Your task to perform on an android device: delete browsing data in the chrome app Image 0: 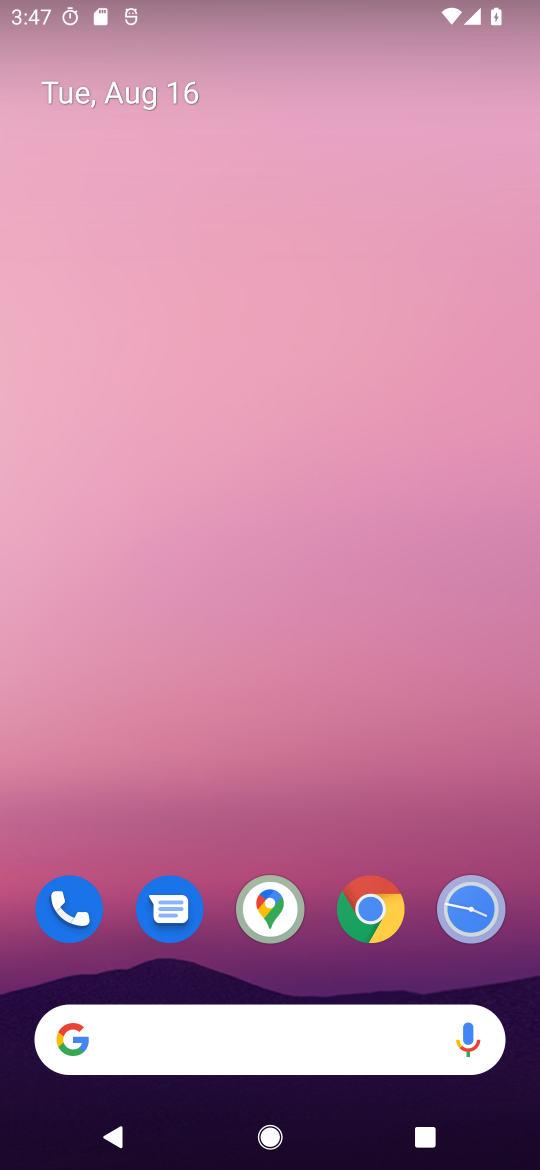
Step 0: drag from (218, 738) to (236, 298)
Your task to perform on an android device: delete browsing data in the chrome app Image 1: 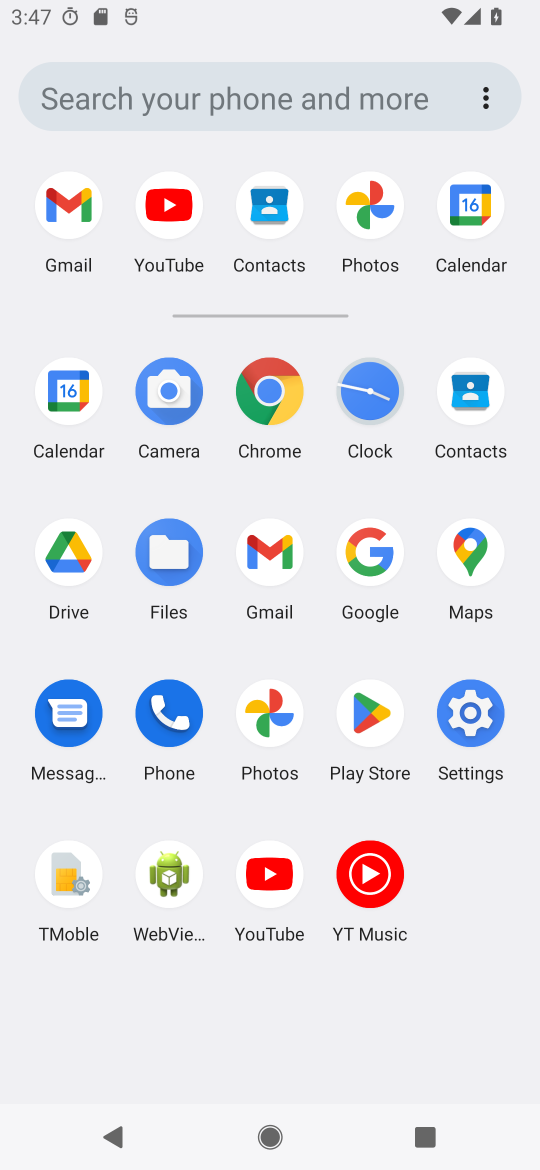
Step 1: click (269, 383)
Your task to perform on an android device: delete browsing data in the chrome app Image 2: 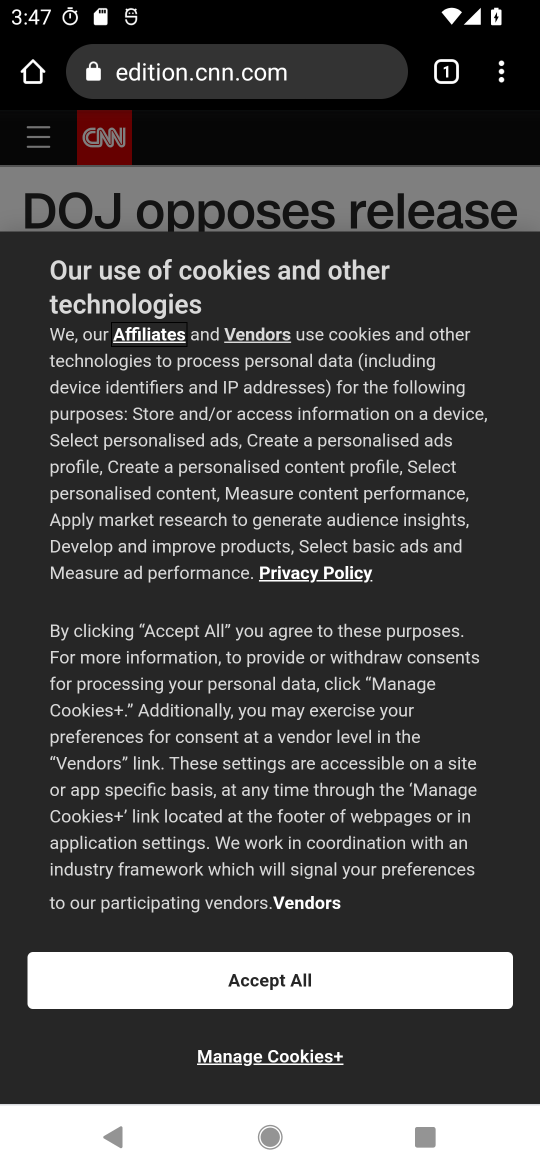
Step 2: click (501, 80)
Your task to perform on an android device: delete browsing data in the chrome app Image 3: 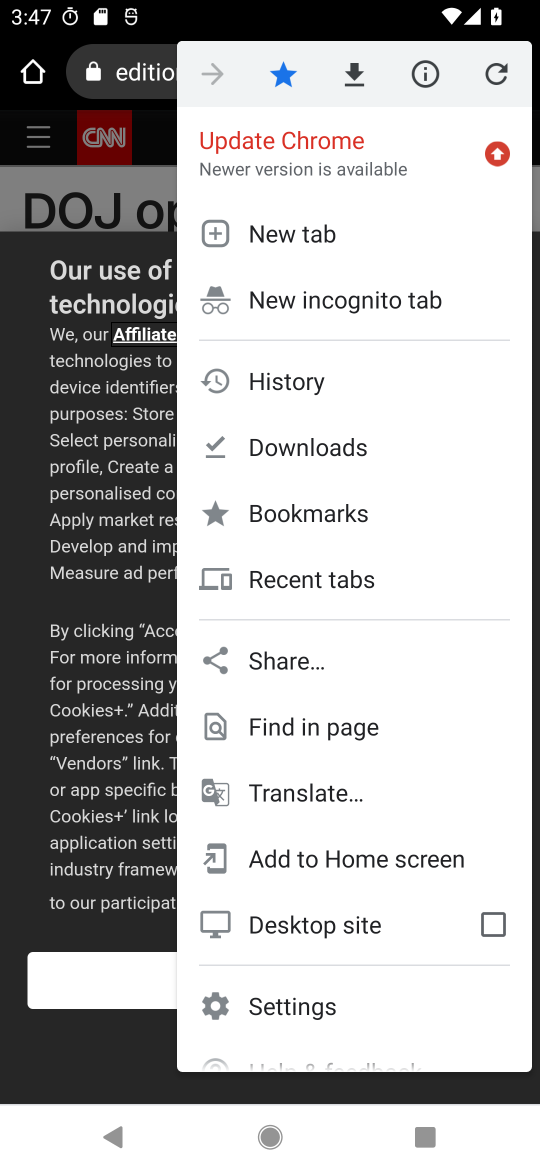
Step 3: click (293, 394)
Your task to perform on an android device: delete browsing data in the chrome app Image 4: 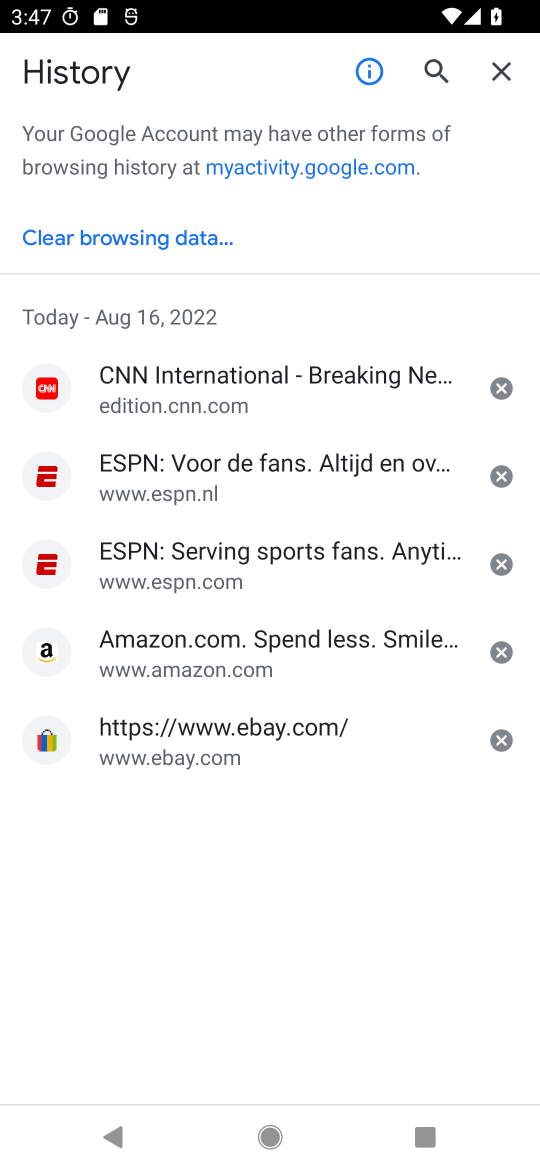
Step 4: click (154, 237)
Your task to perform on an android device: delete browsing data in the chrome app Image 5: 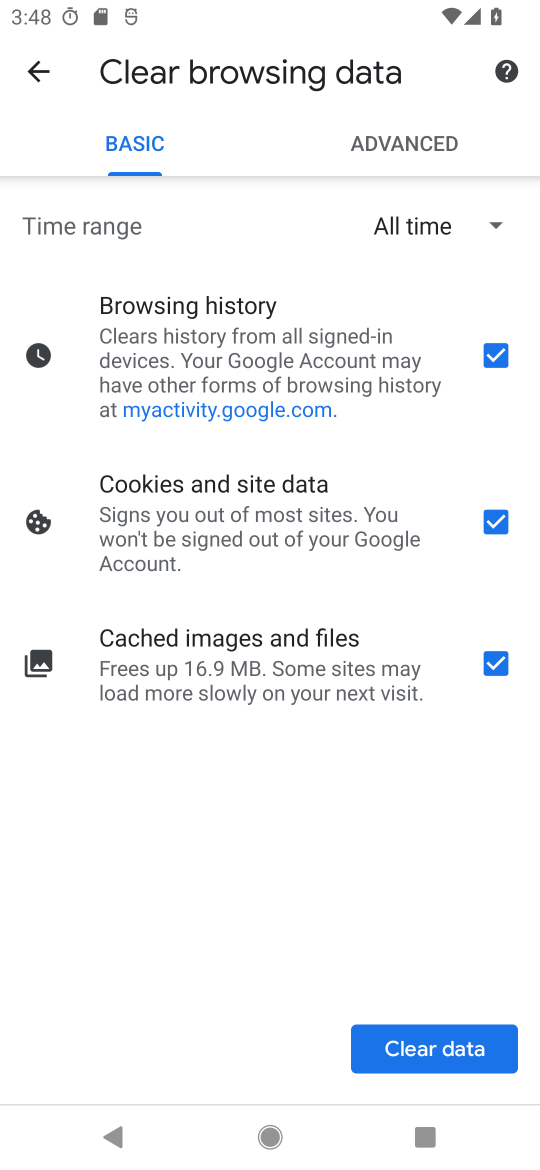
Step 5: click (439, 1055)
Your task to perform on an android device: delete browsing data in the chrome app Image 6: 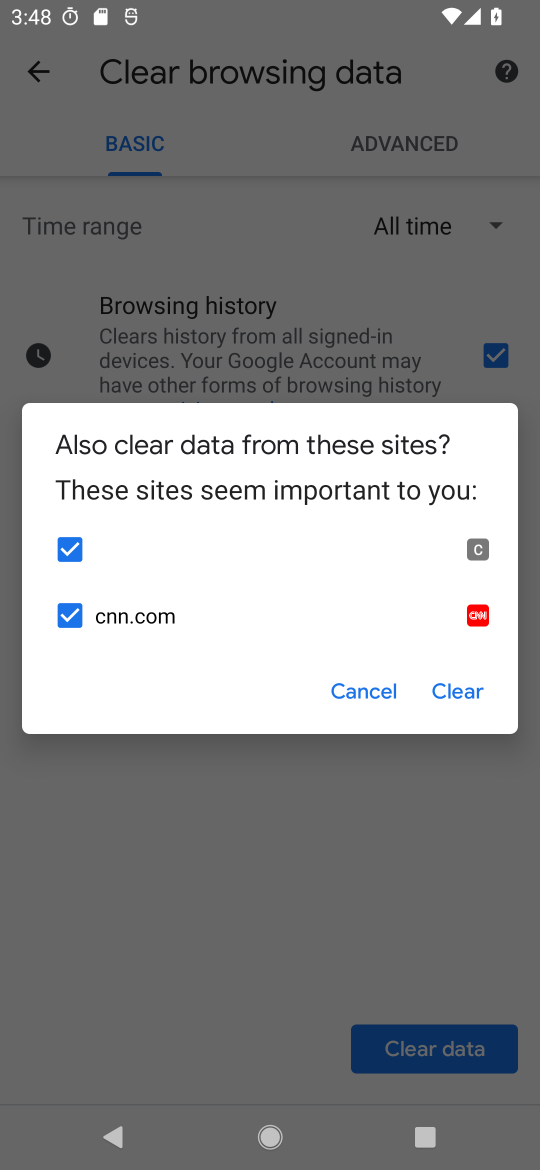
Step 6: click (462, 701)
Your task to perform on an android device: delete browsing data in the chrome app Image 7: 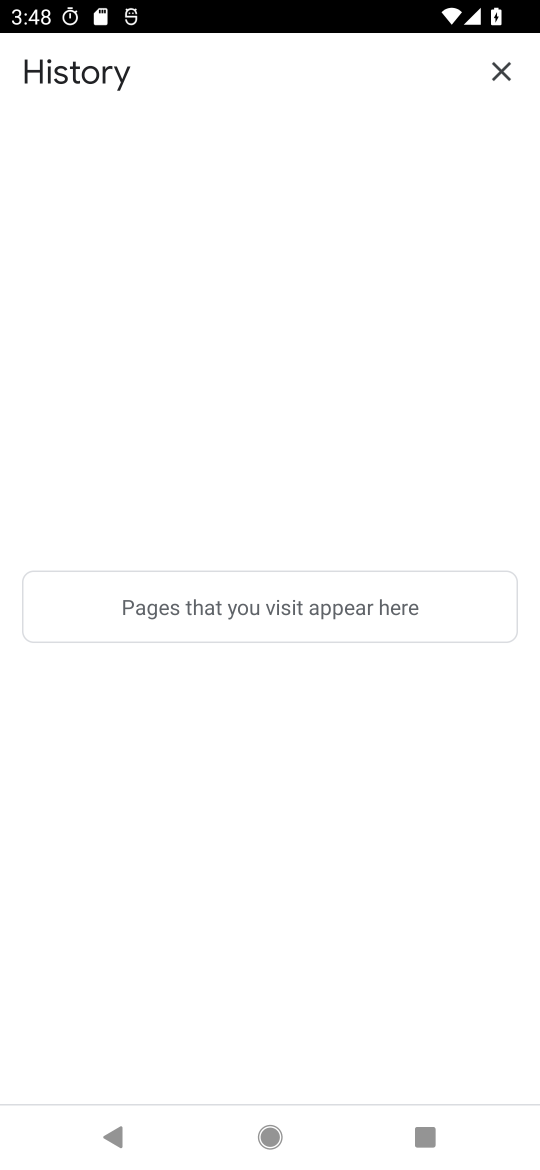
Step 7: task complete